Your task to perform on an android device: Show me the alarms in the clock app Image 0: 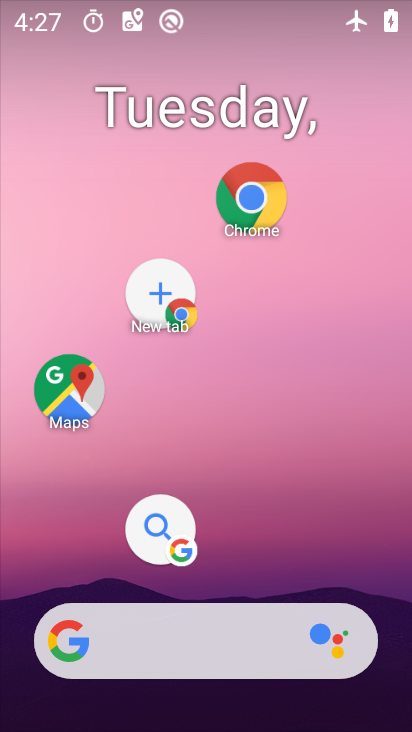
Step 0: drag from (190, 598) to (217, 165)
Your task to perform on an android device: Show me the alarms in the clock app Image 1: 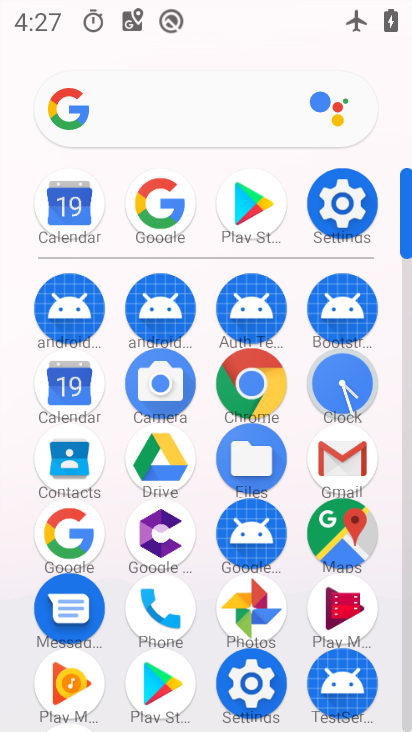
Step 1: click (344, 398)
Your task to perform on an android device: Show me the alarms in the clock app Image 2: 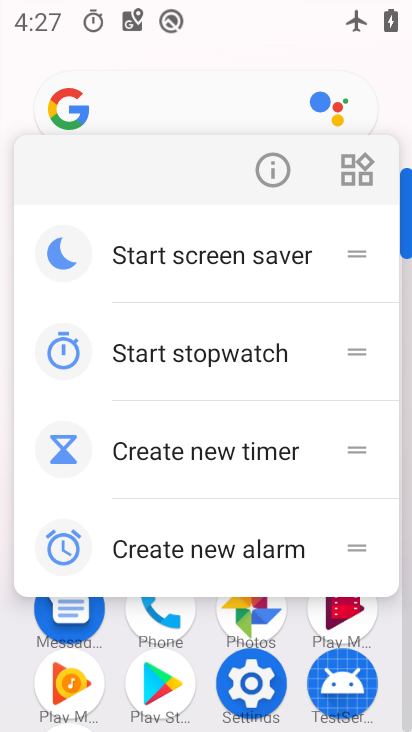
Step 2: click (392, 648)
Your task to perform on an android device: Show me the alarms in the clock app Image 3: 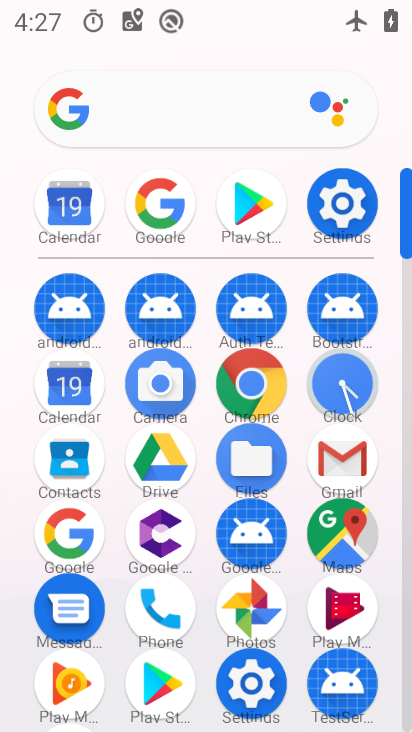
Step 3: click (343, 381)
Your task to perform on an android device: Show me the alarms in the clock app Image 4: 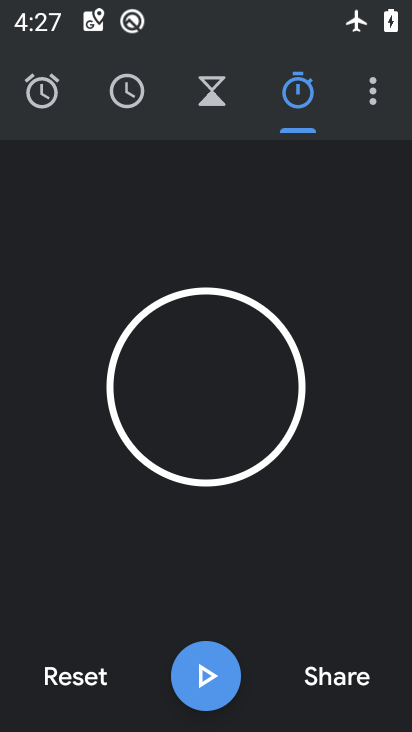
Step 4: click (37, 97)
Your task to perform on an android device: Show me the alarms in the clock app Image 5: 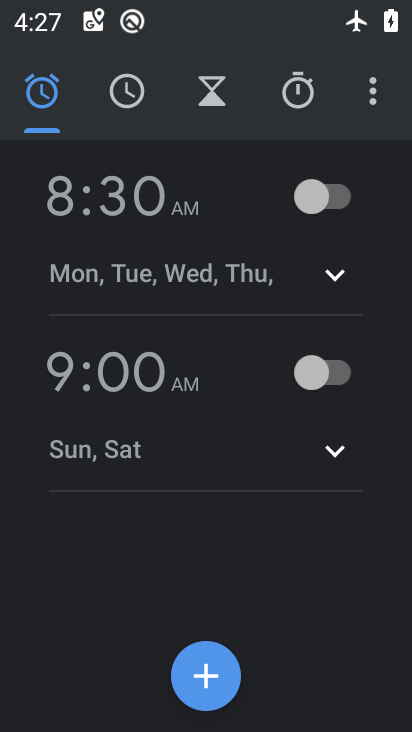
Step 5: task complete